Your task to perform on an android device: check google app version Image 0: 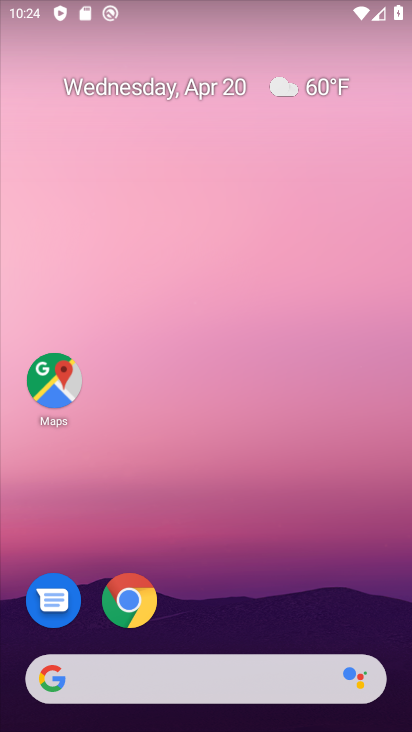
Step 0: click (49, 682)
Your task to perform on an android device: check google app version Image 1: 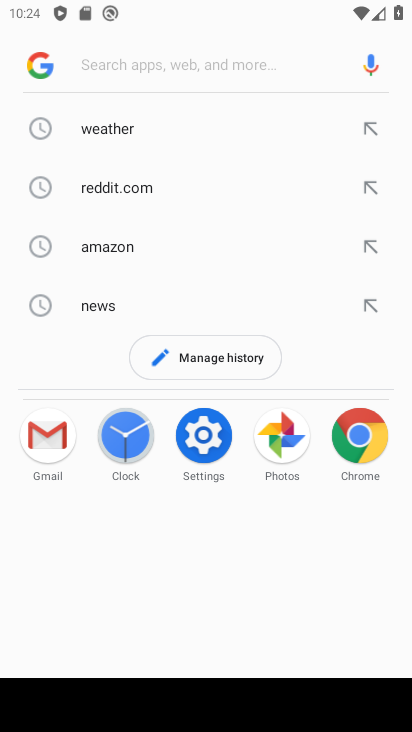
Step 1: click (42, 81)
Your task to perform on an android device: check google app version Image 2: 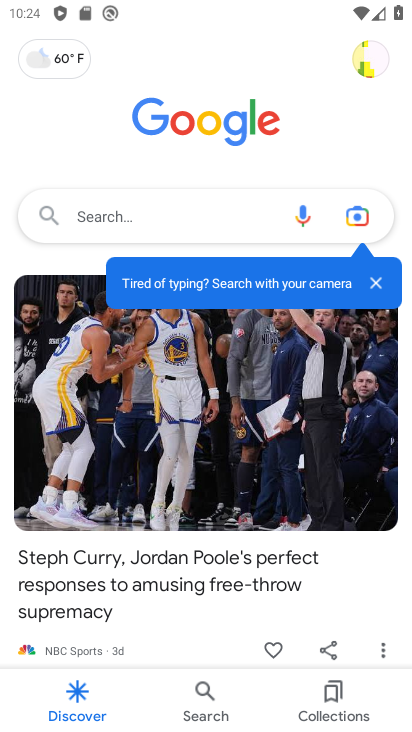
Step 2: click (370, 67)
Your task to perform on an android device: check google app version Image 3: 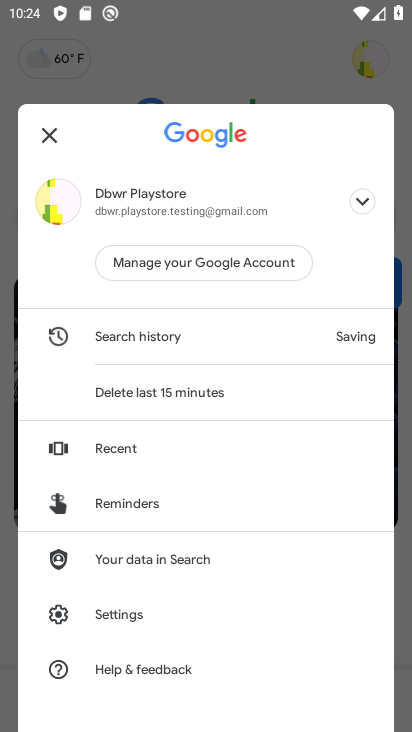
Step 3: click (198, 622)
Your task to perform on an android device: check google app version Image 4: 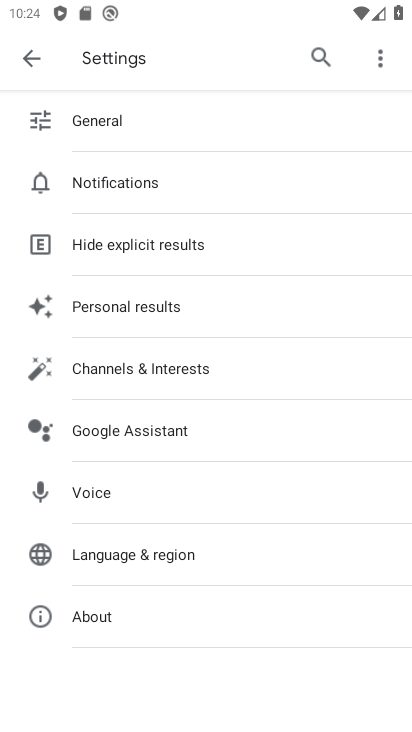
Step 4: click (198, 622)
Your task to perform on an android device: check google app version Image 5: 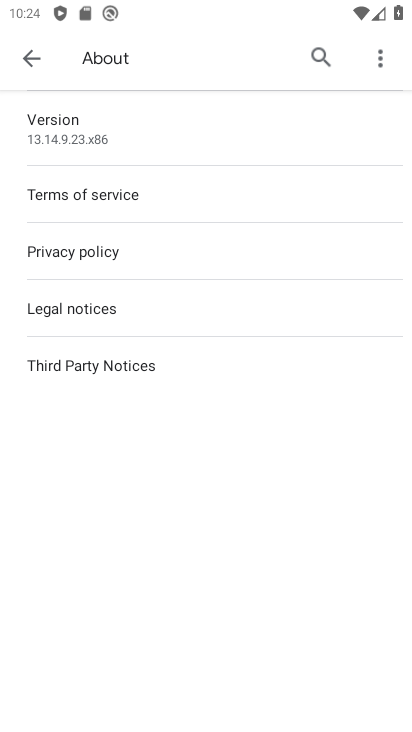
Step 5: task complete